Your task to perform on an android device: Check the news Image 0: 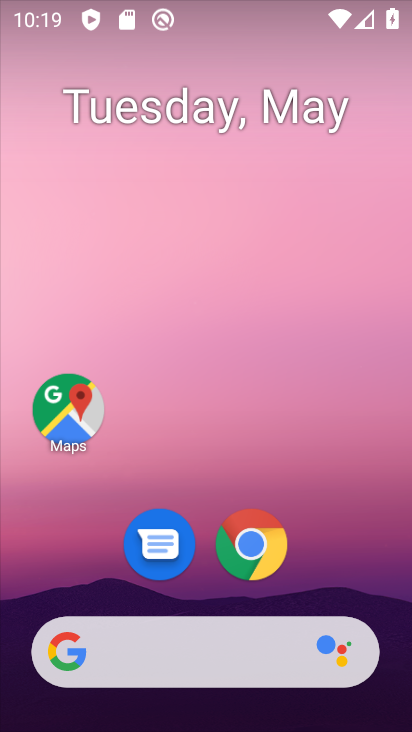
Step 0: drag from (368, 597) to (246, 103)
Your task to perform on an android device: Check the news Image 1: 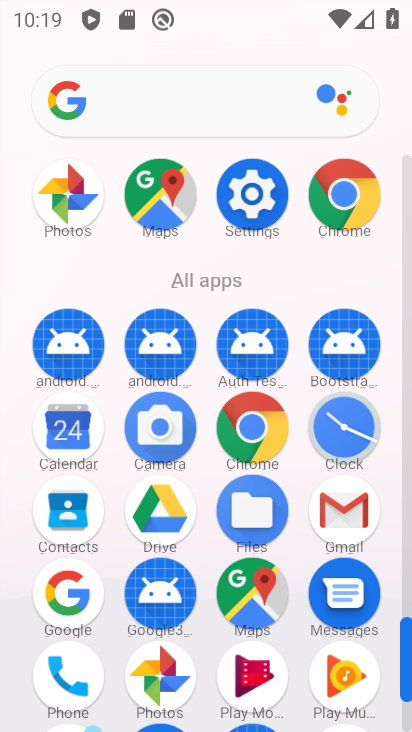
Step 1: click (346, 196)
Your task to perform on an android device: Check the news Image 2: 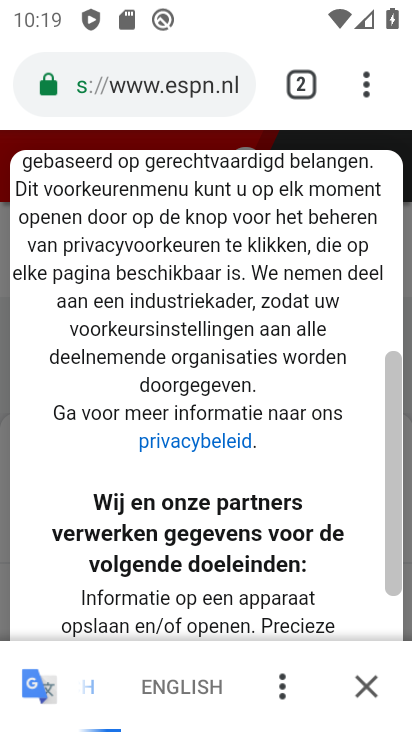
Step 2: click (191, 93)
Your task to perform on an android device: Check the news Image 3: 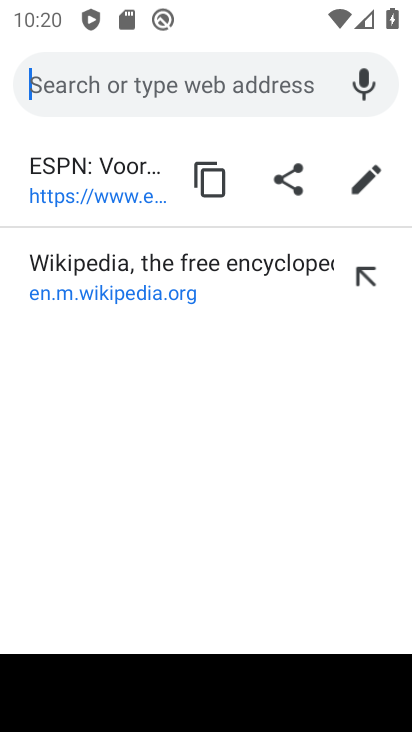
Step 3: type "news"
Your task to perform on an android device: Check the news Image 4: 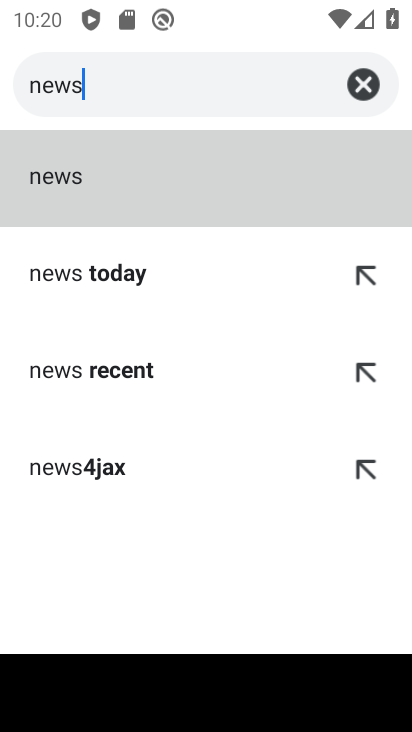
Step 4: click (65, 177)
Your task to perform on an android device: Check the news Image 5: 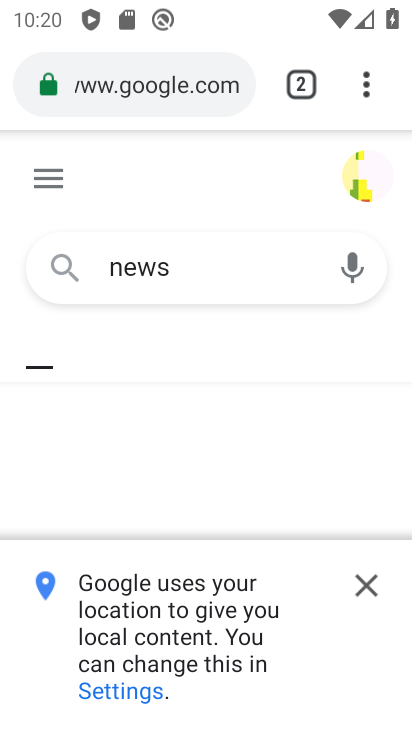
Step 5: click (65, 177)
Your task to perform on an android device: Check the news Image 6: 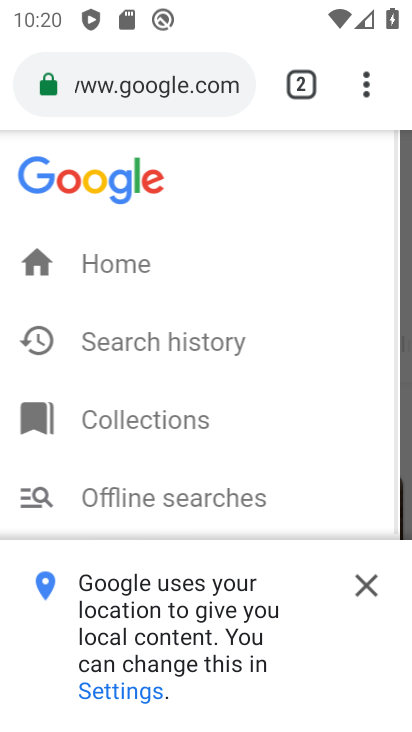
Step 6: click (365, 583)
Your task to perform on an android device: Check the news Image 7: 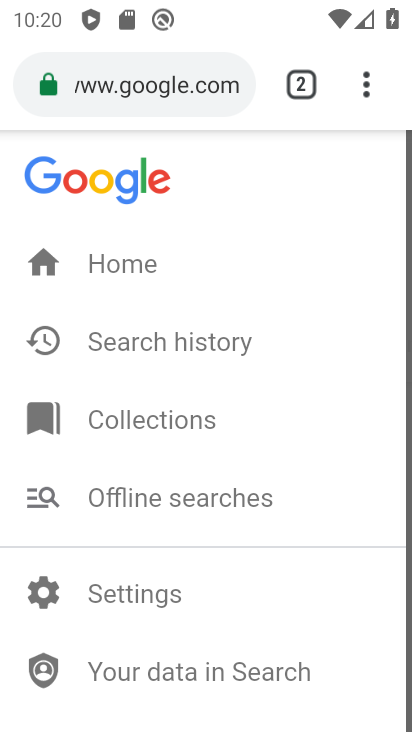
Step 7: click (205, 89)
Your task to perform on an android device: Check the news Image 8: 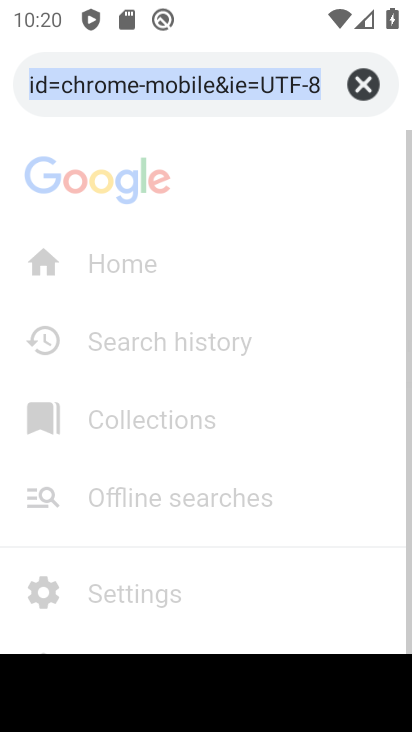
Step 8: type "news"
Your task to perform on an android device: Check the news Image 9: 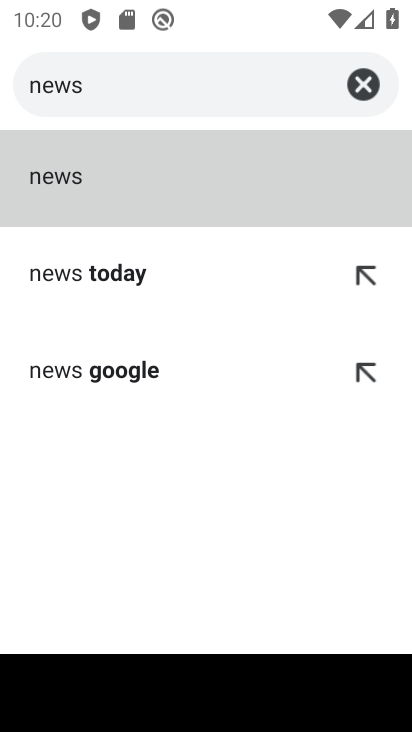
Step 9: click (50, 201)
Your task to perform on an android device: Check the news Image 10: 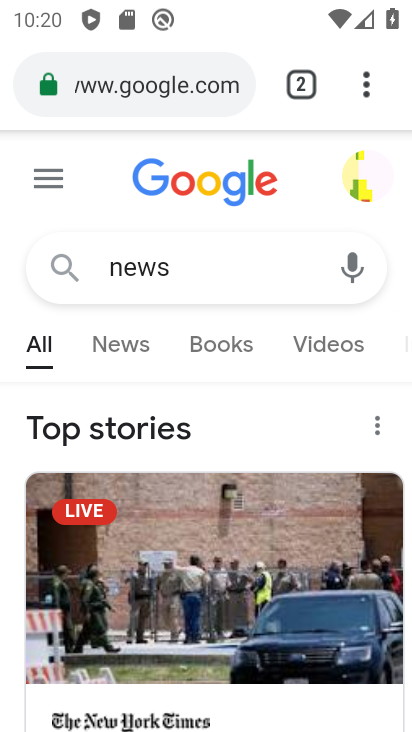
Step 10: task complete